Your task to perform on an android device: toggle improve location accuracy Image 0: 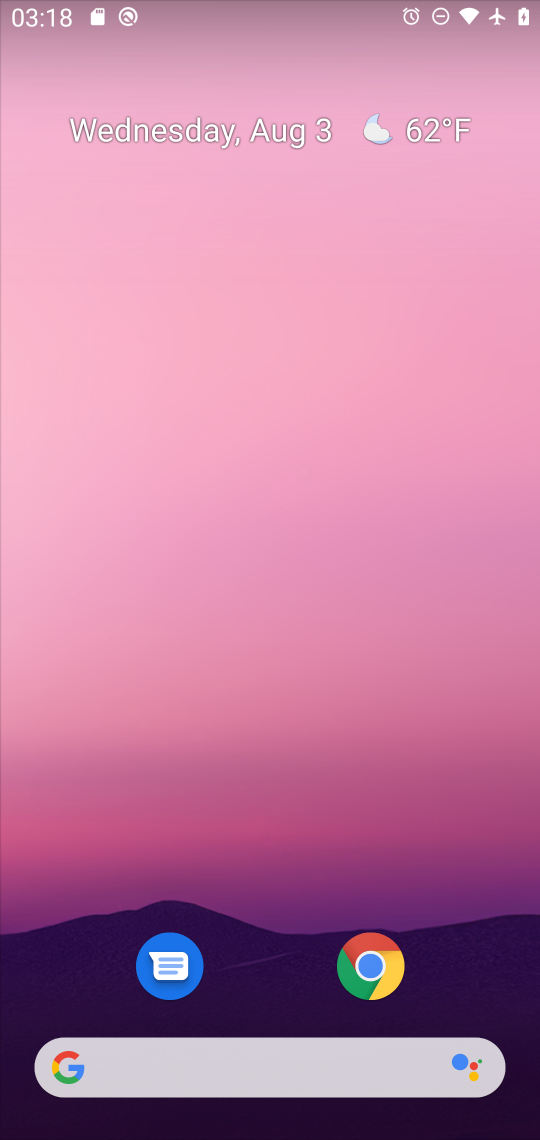
Step 0: drag from (244, 1003) to (252, 345)
Your task to perform on an android device: toggle improve location accuracy Image 1: 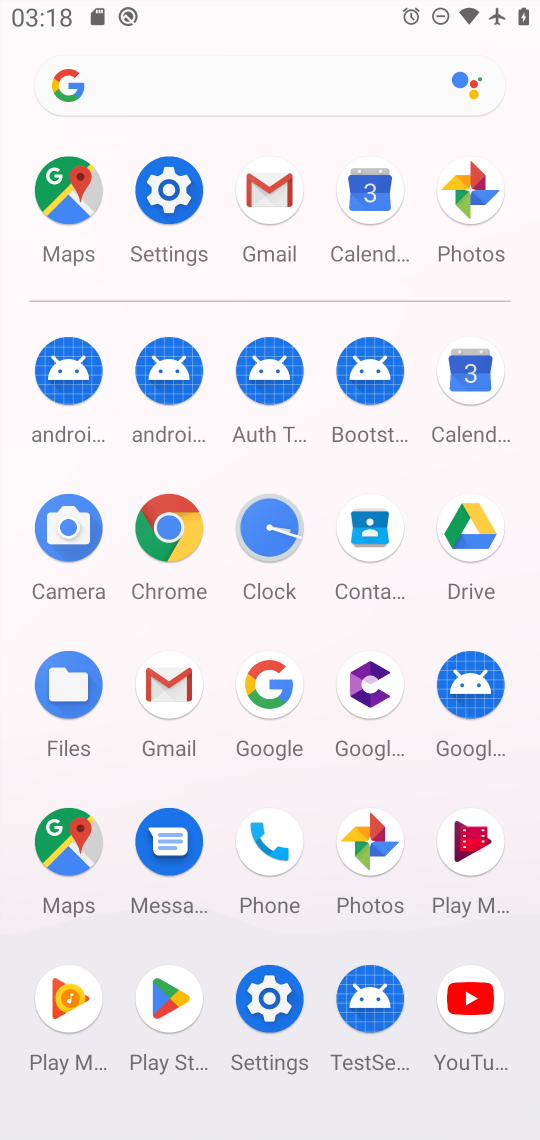
Step 1: click (195, 200)
Your task to perform on an android device: toggle improve location accuracy Image 2: 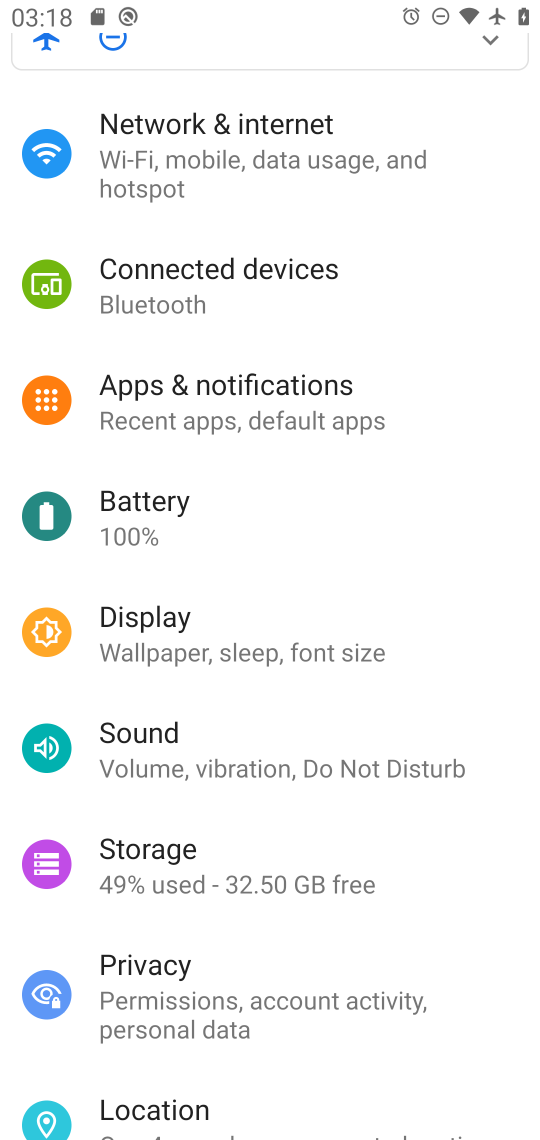
Step 2: drag from (297, 1029) to (311, 659)
Your task to perform on an android device: toggle improve location accuracy Image 3: 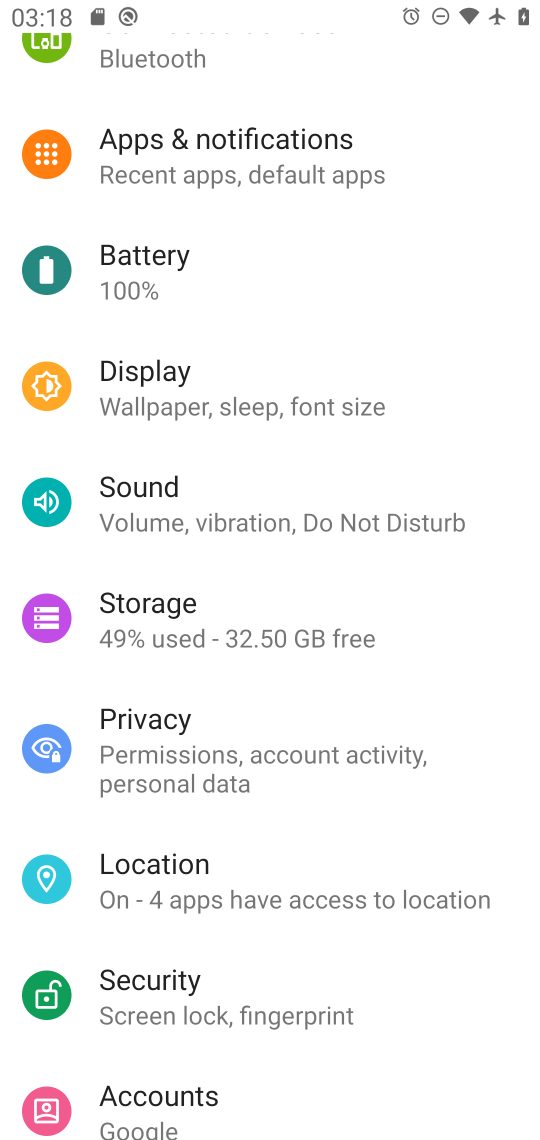
Step 3: click (222, 869)
Your task to perform on an android device: toggle improve location accuracy Image 4: 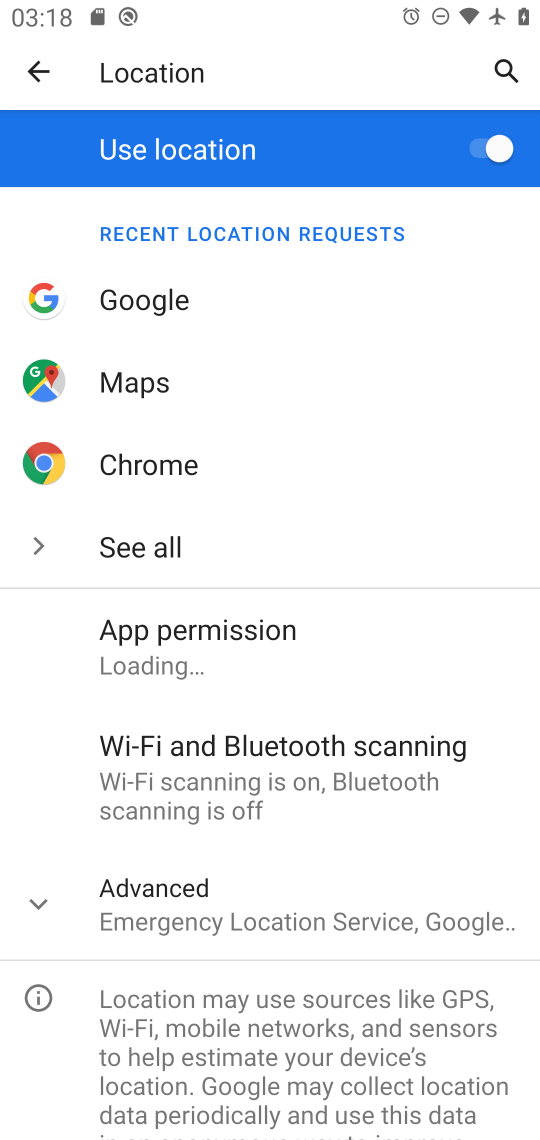
Step 4: click (272, 886)
Your task to perform on an android device: toggle improve location accuracy Image 5: 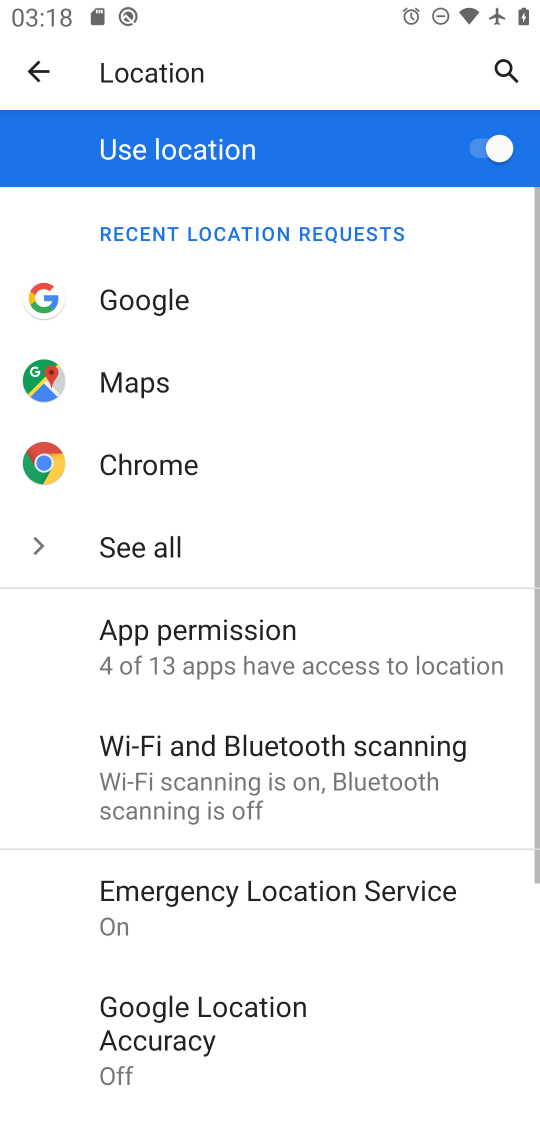
Step 5: drag from (308, 976) to (335, 682)
Your task to perform on an android device: toggle improve location accuracy Image 6: 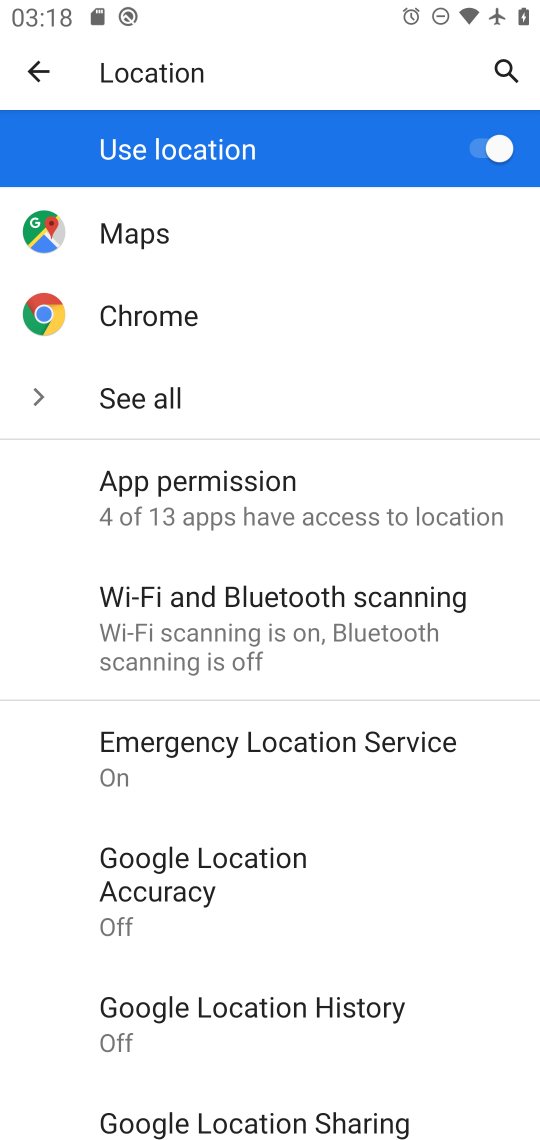
Step 6: click (279, 872)
Your task to perform on an android device: toggle improve location accuracy Image 7: 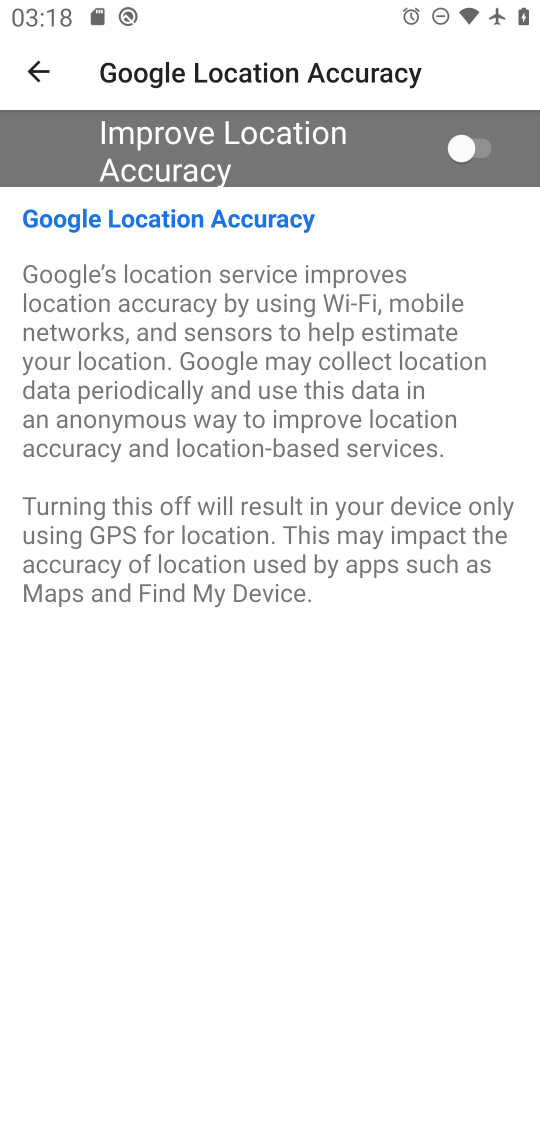
Step 7: click (483, 156)
Your task to perform on an android device: toggle improve location accuracy Image 8: 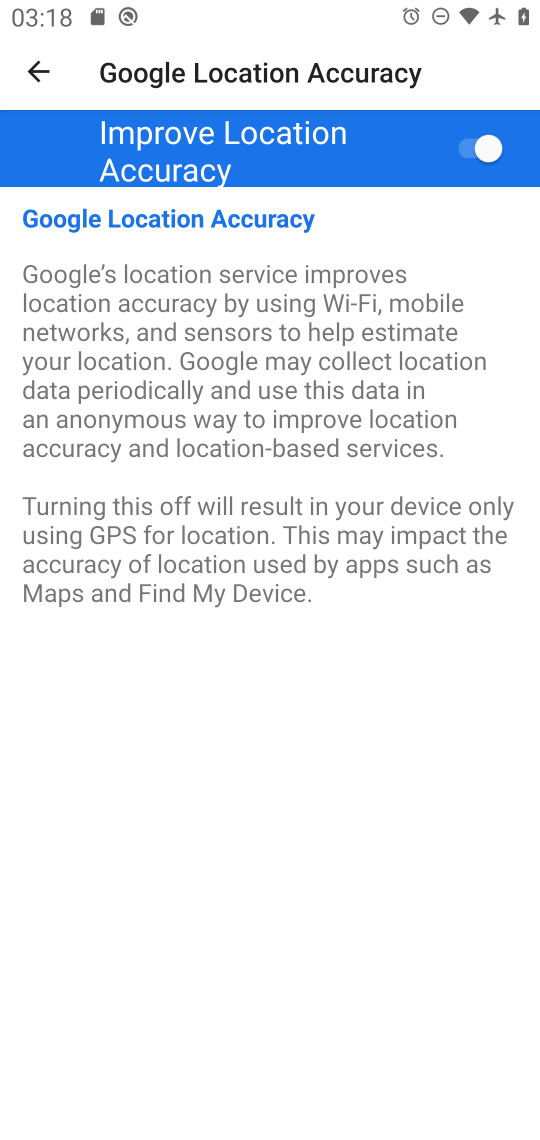
Step 8: task complete